Your task to perform on an android device: Search for seafood restaurants on Google Maps Image 0: 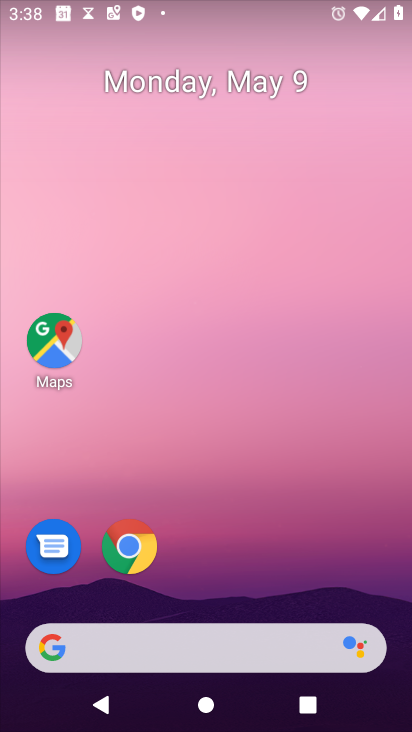
Step 0: drag from (330, 498) to (282, 68)
Your task to perform on an android device: Search for seafood restaurants on Google Maps Image 1: 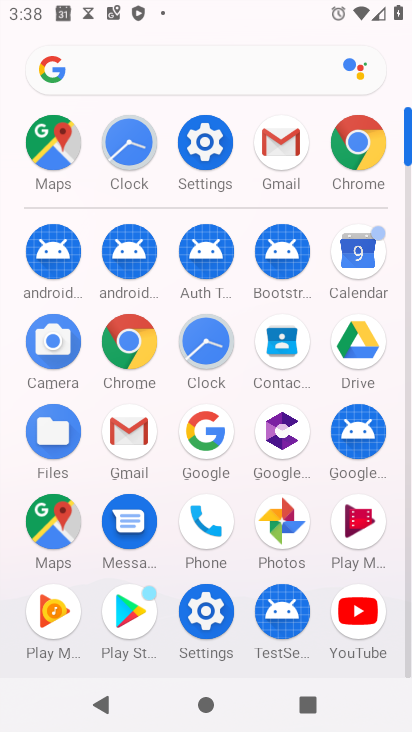
Step 1: click (71, 154)
Your task to perform on an android device: Search for seafood restaurants on Google Maps Image 2: 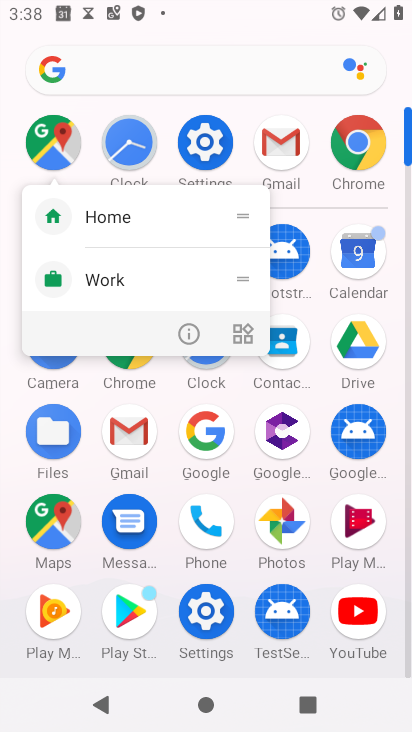
Step 2: click (71, 154)
Your task to perform on an android device: Search for seafood restaurants on Google Maps Image 3: 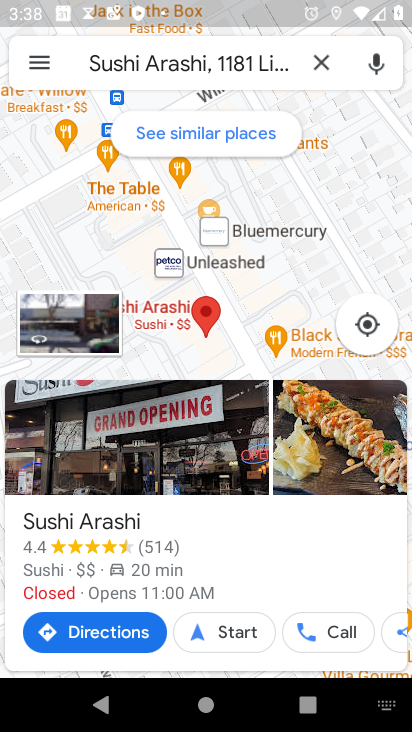
Step 3: click (323, 68)
Your task to perform on an android device: Search for seafood restaurants on Google Maps Image 4: 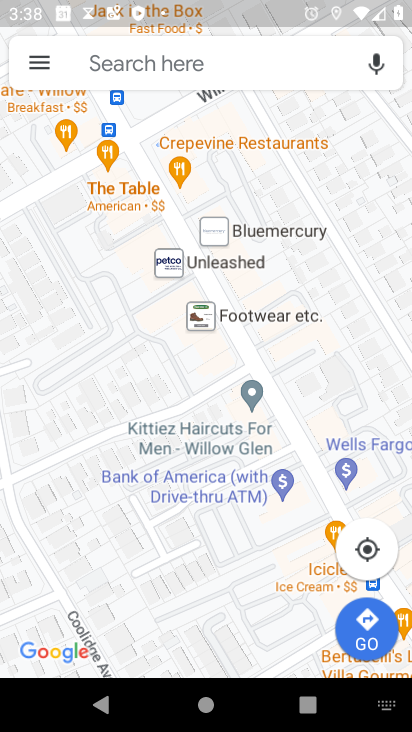
Step 4: click (252, 72)
Your task to perform on an android device: Search for seafood restaurants on Google Maps Image 5: 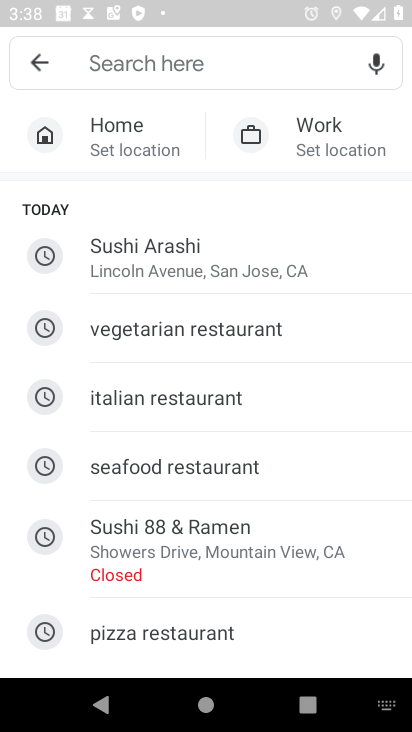
Step 5: click (226, 469)
Your task to perform on an android device: Search for seafood restaurants on Google Maps Image 6: 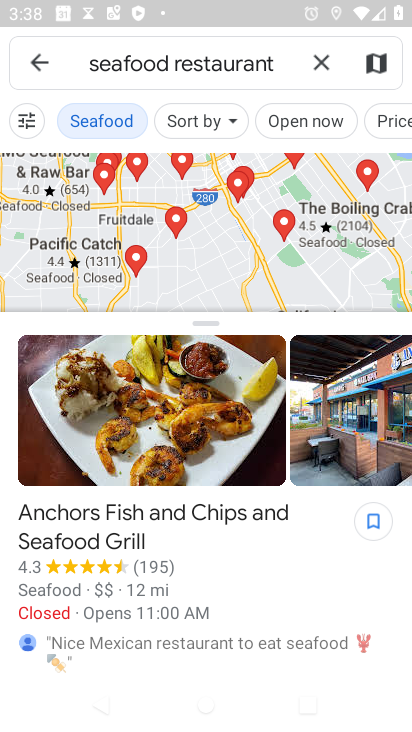
Step 6: task complete